Your task to perform on an android device: Open ESPN.com Image 0: 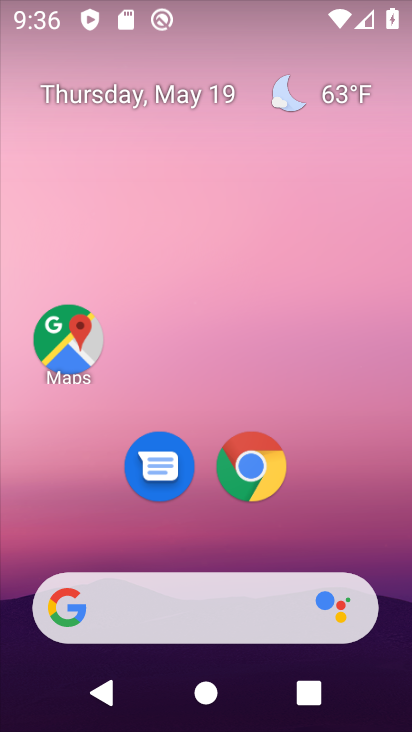
Step 0: drag from (380, 631) to (292, 82)
Your task to perform on an android device: Open ESPN.com Image 1: 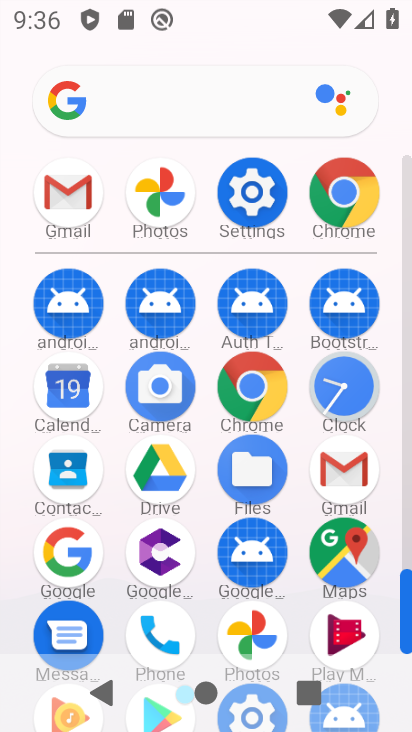
Step 1: click (78, 552)
Your task to perform on an android device: Open ESPN.com Image 2: 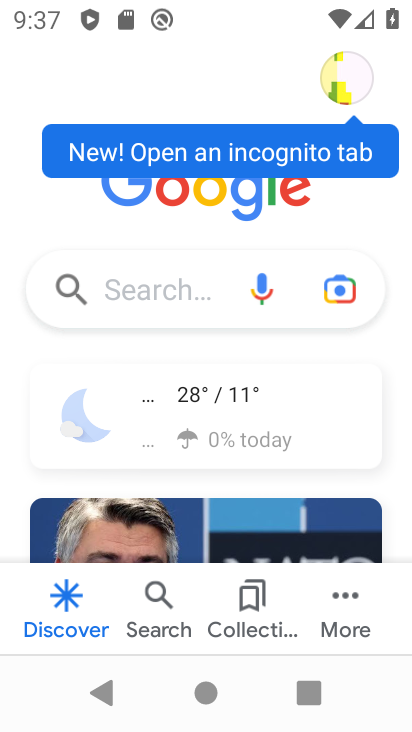
Step 2: click (143, 287)
Your task to perform on an android device: Open ESPN.com Image 3: 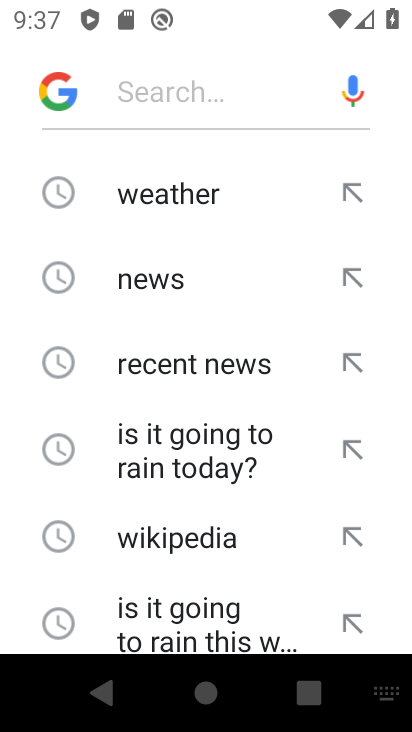
Step 3: drag from (128, 577) to (190, 169)
Your task to perform on an android device: Open ESPN.com Image 4: 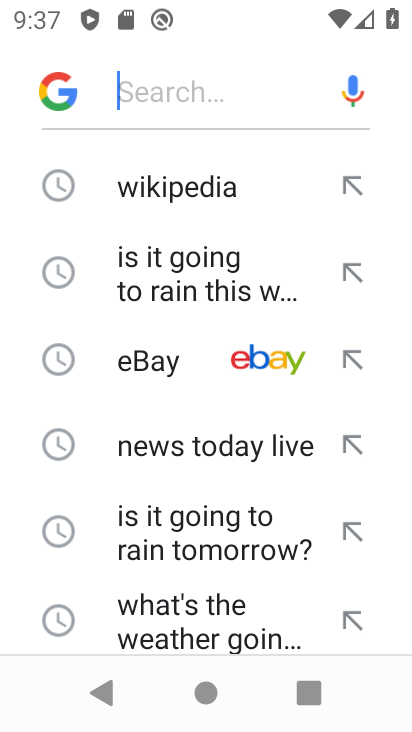
Step 4: drag from (154, 573) to (206, 162)
Your task to perform on an android device: Open ESPN.com Image 5: 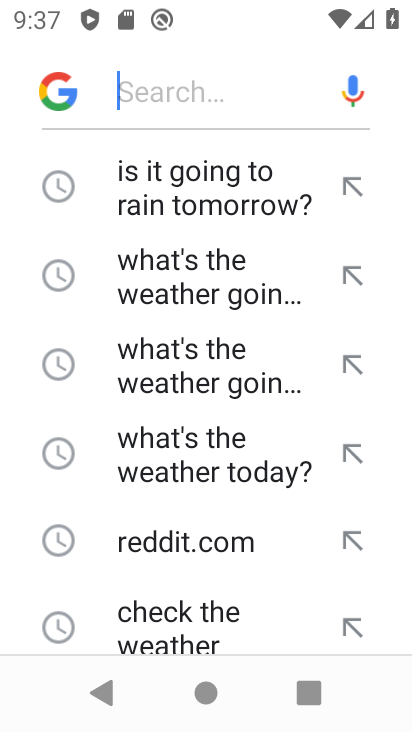
Step 5: drag from (205, 581) to (213, 201)
Your task to perform on an android device: Open ESPN.com Image 6: 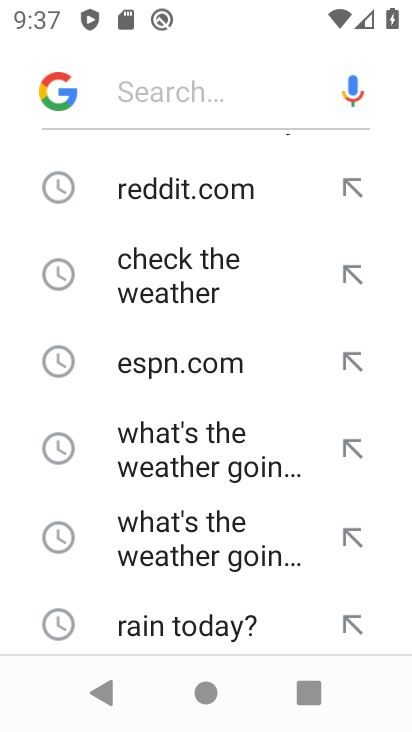
Step 6: click (162, 389)
Your task to perform on an android device: Open ESPN.com Image 7: 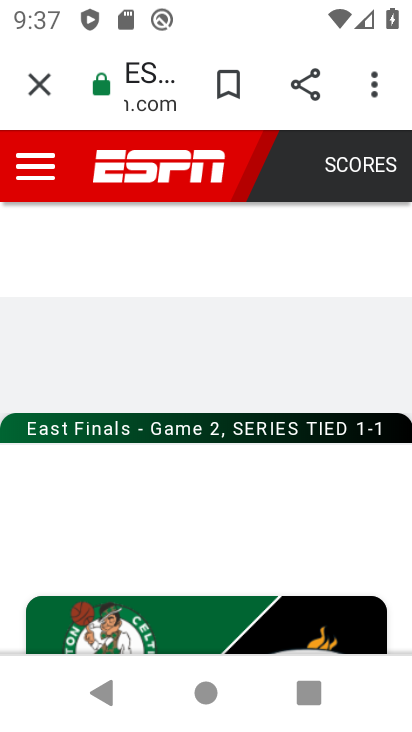
Step 7: task complete